Your task to perform on an android device: What's the weather? Image 0: 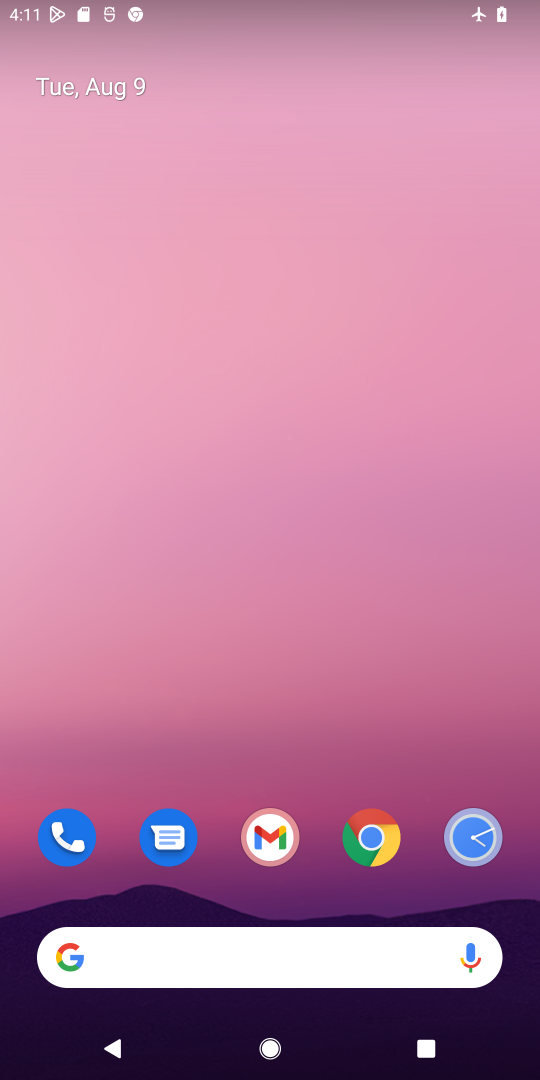
Step 0: drag from (342, 920) to (349, 176)
Your task to perform on an android device: What's the weather? Image 1: 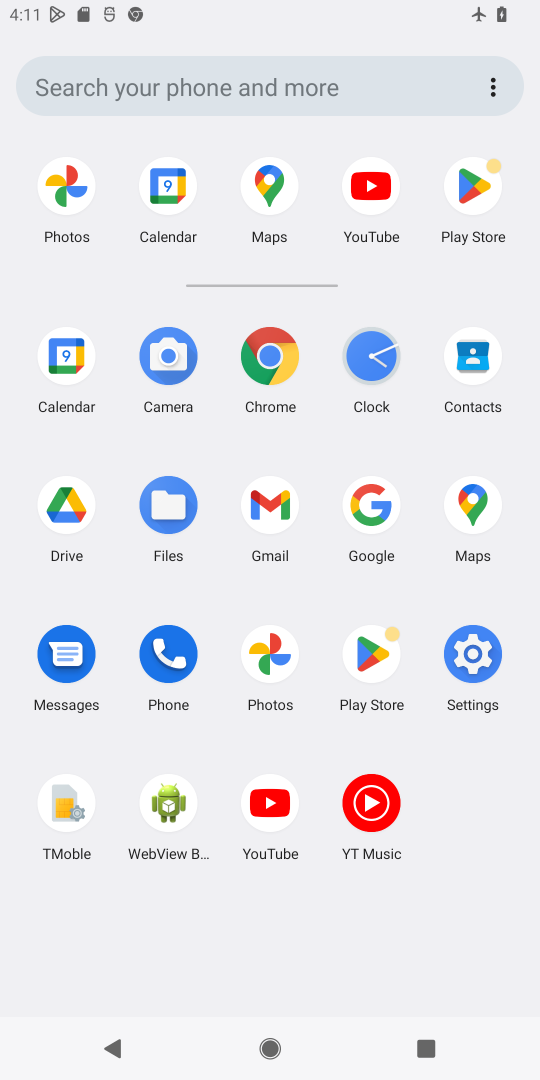
Step 1: click (266, 366)
Your task to perform on an android device: What's the weather? Image 2: 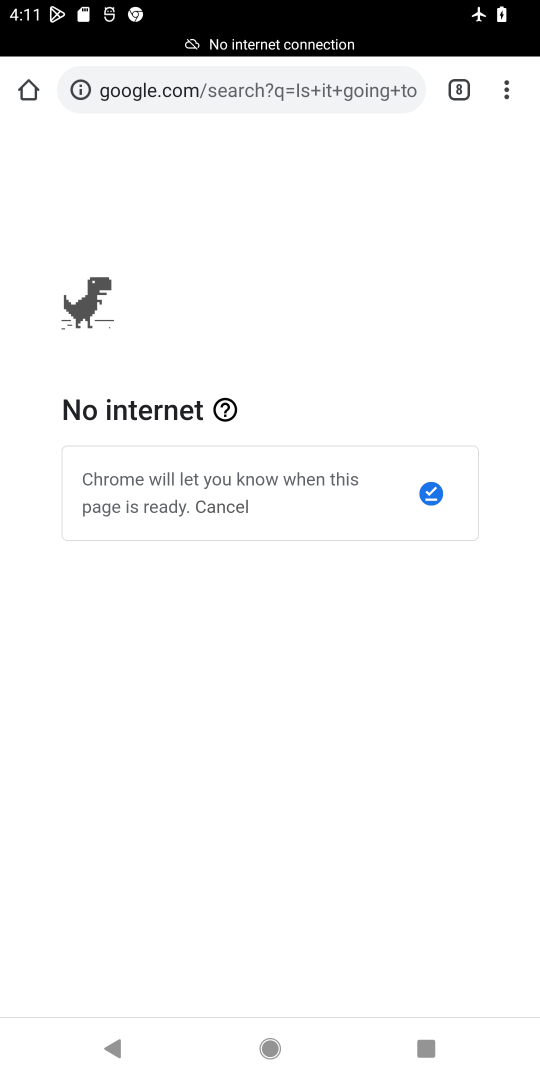
Step 2: click (517, 84)
Your task to perform on an android device: What's the weather? Image 3: 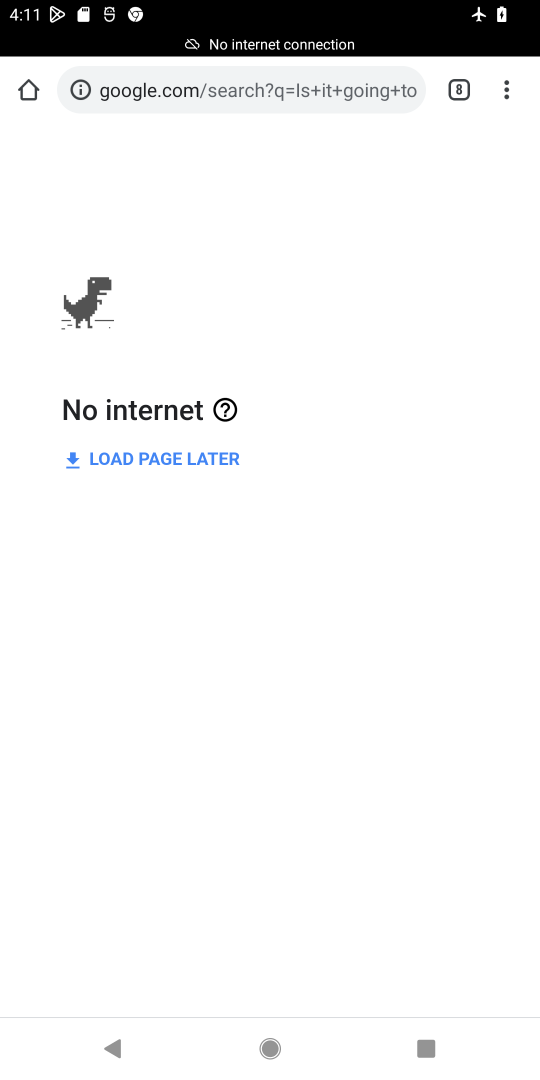
Step 3: click (507, 87)
Your task to perform on an android device: What's the weather? Image 4: 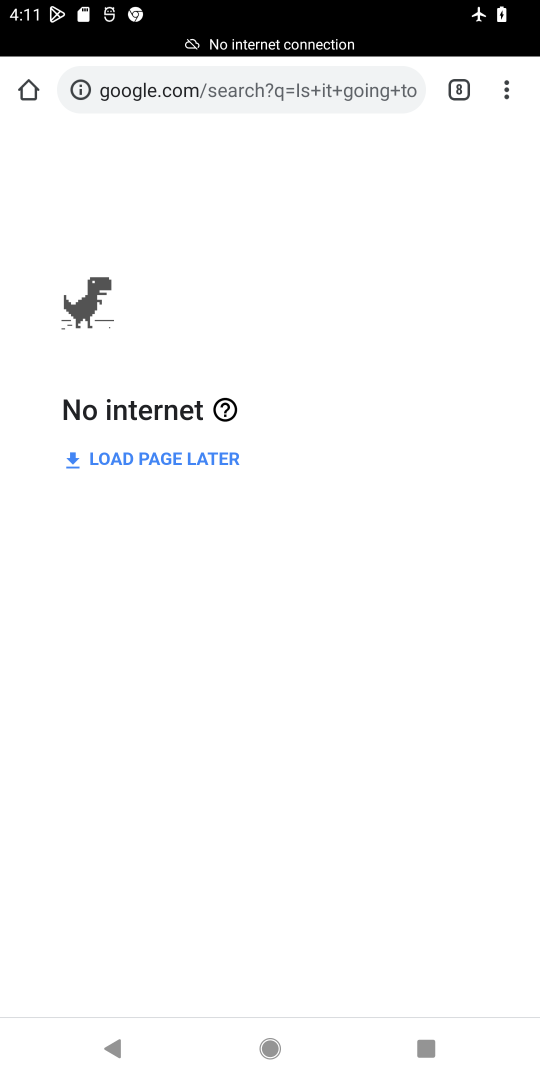
Step 4: click (507, 87)
Your task to perform on an android device: What's the weather? Image 5: 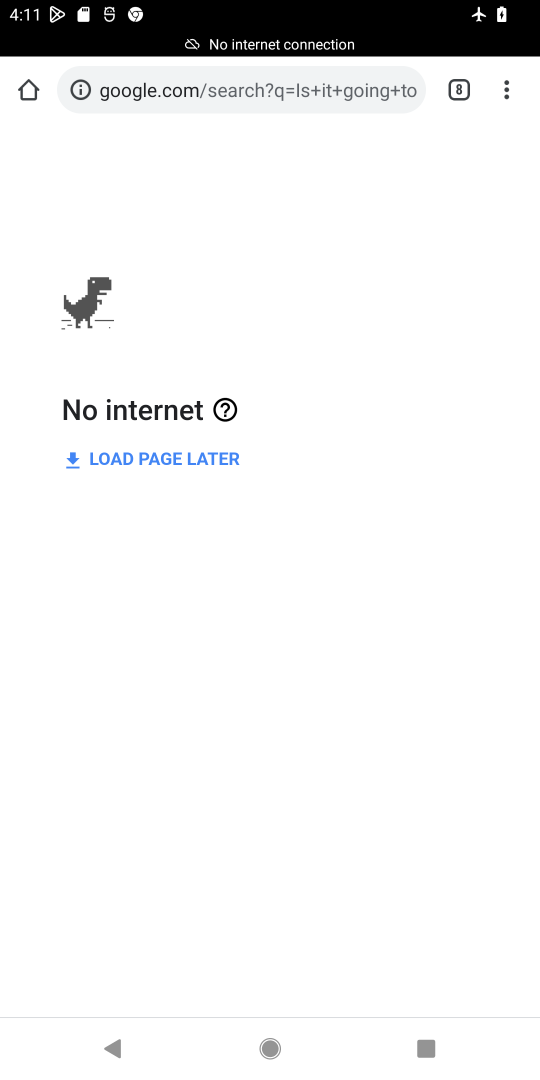
Step 5: click (507, 87)
Your task to perform on an android device: What's the weather? Image 6: 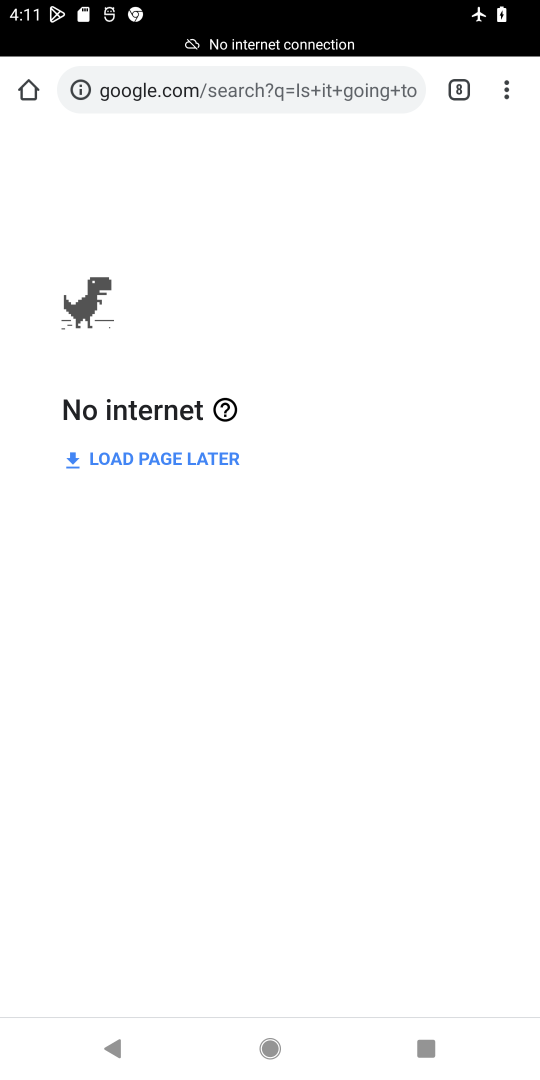
Step 6: click (511, 82)
Your task to perform on an android device: What's the weather? Image 7: 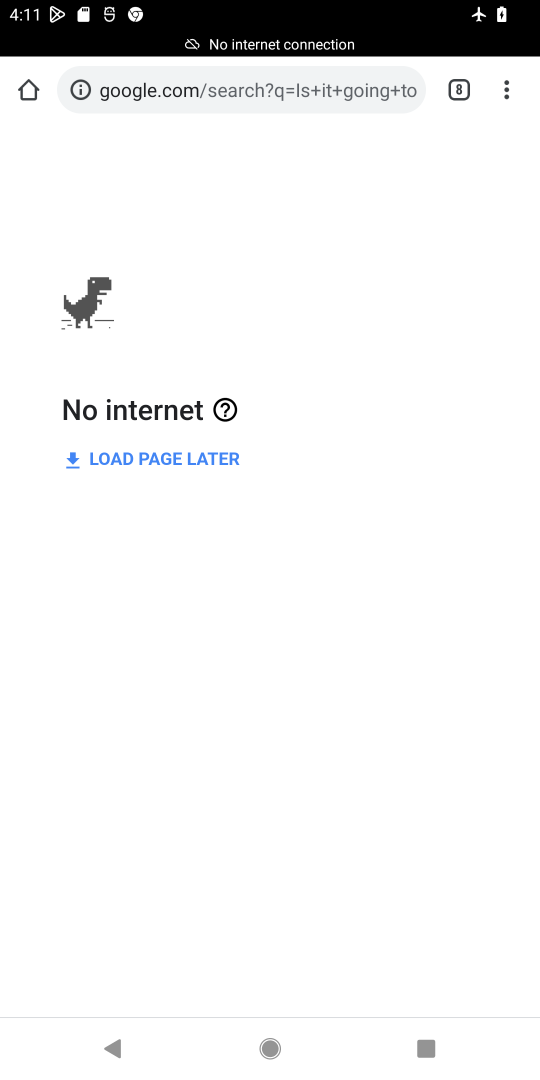
Step 7: click (511, 82)
Your task to perform on an android device: What's the weather? Image 8: 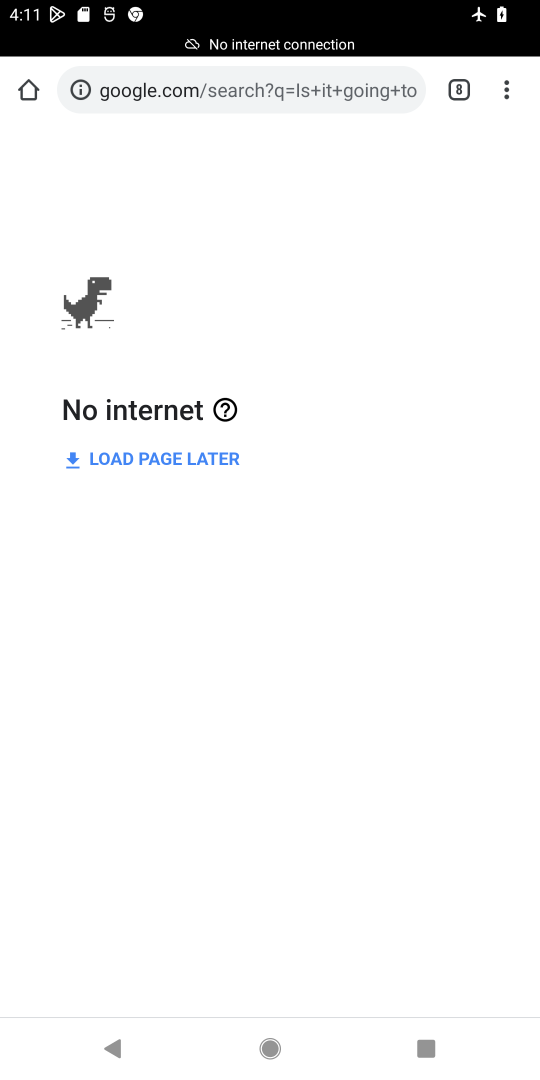
Step 8: click (511, 82)
Your task to perform on an android device: What's the weather? Image 9: 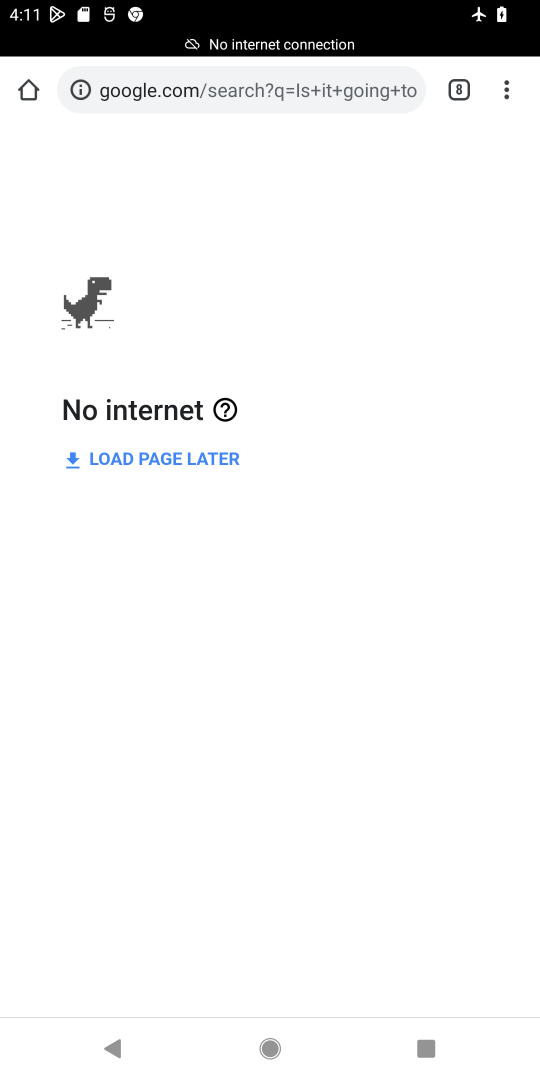
Step 9: click (511, 82)
Your task to perform on an android device: What's the weather? Image 10: 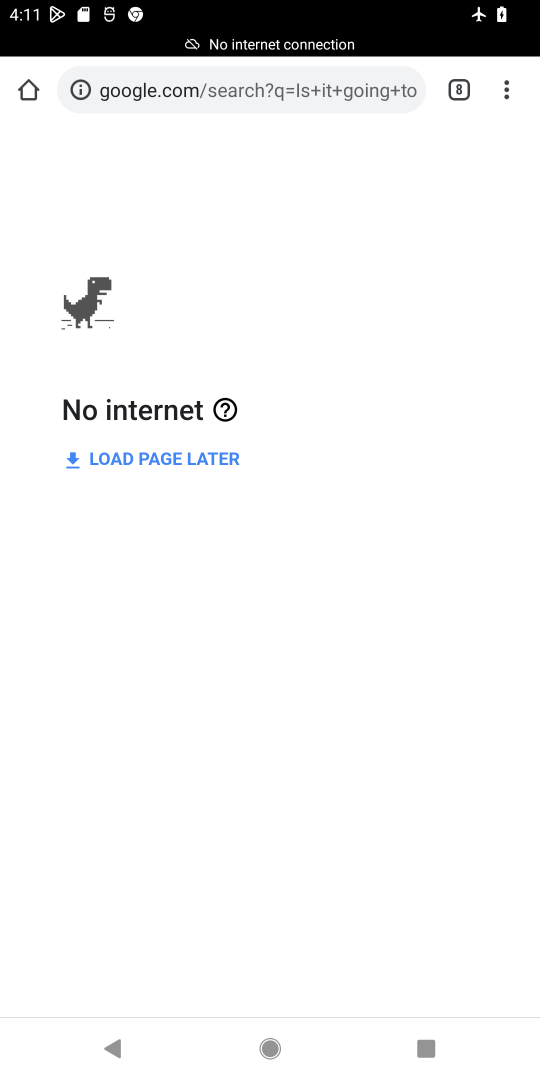
Step 10: click (511, 82)
Your task to perform on an android device: What's the weather? Image 11: 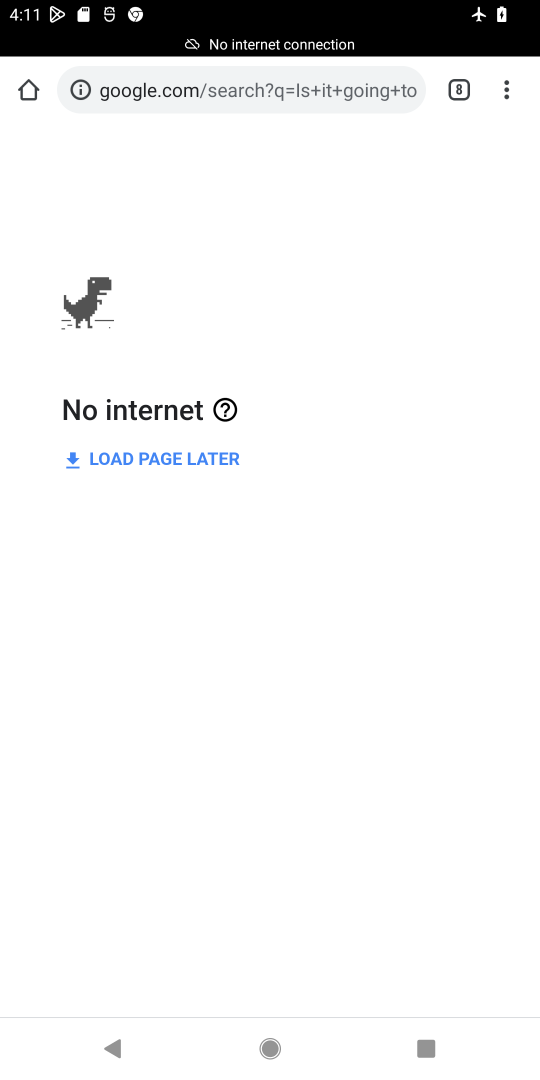
Step 11: click (511, 82)
Your task to perform on an android device: What's the weather? Image 12: 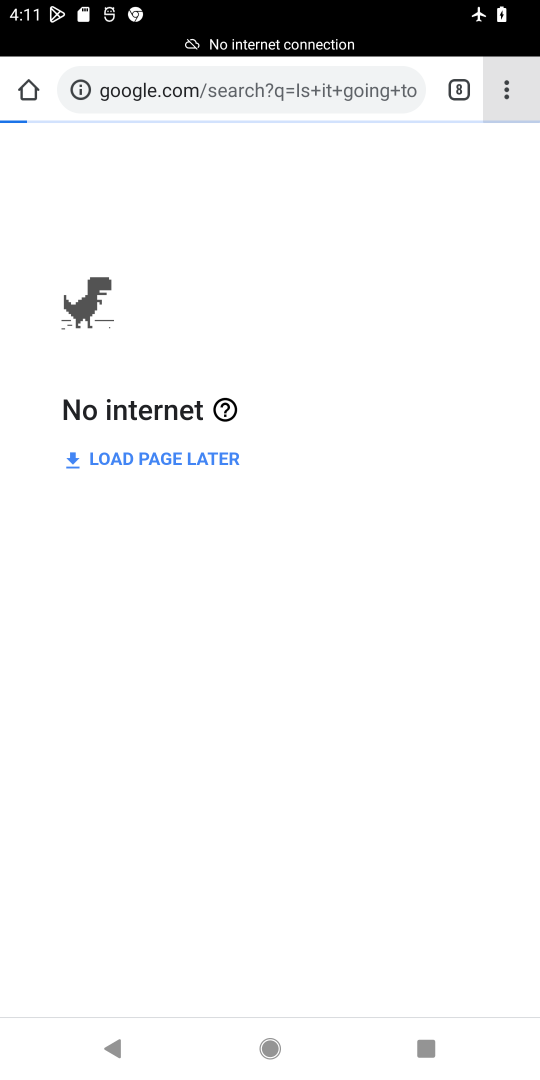
Step 12: click (511, 82)
Your task to perform on an android device: What's the weather? Image 13: 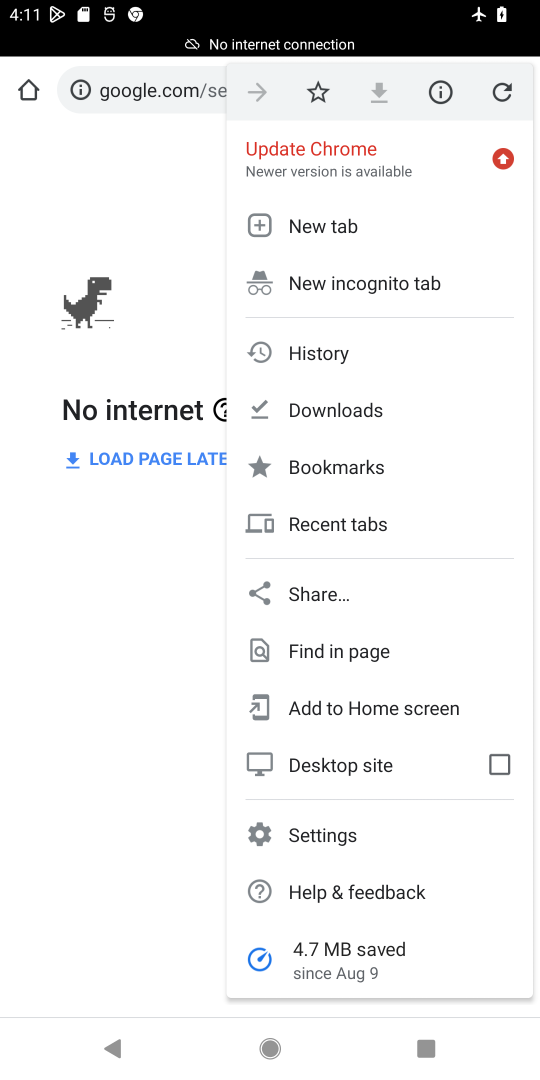
Step 13: click (293, 214)
Your task to perform on an android device: What's the weather? Image 14: 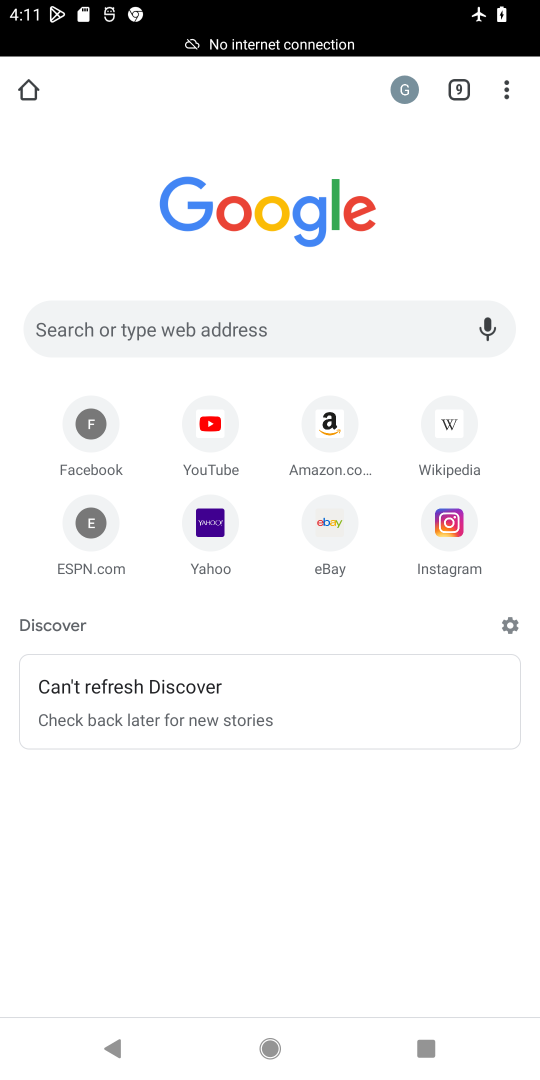
Step 14: click (320, 312)
Your task to perform on an android device: What's the weather? Image 15: 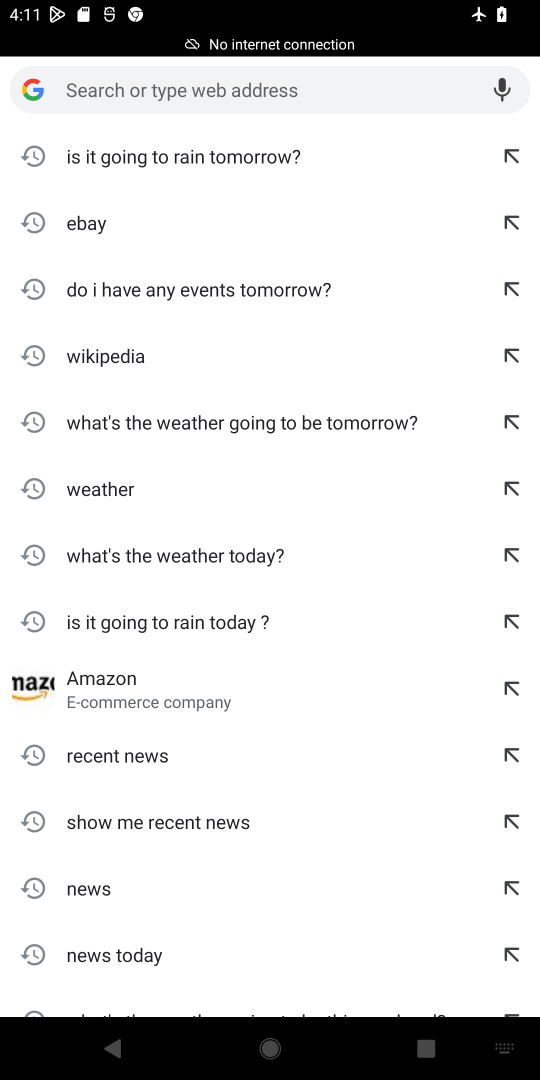
Step 15: type "What's the weather? "
Your task to perform on an android device: What's the weather? Image 16: 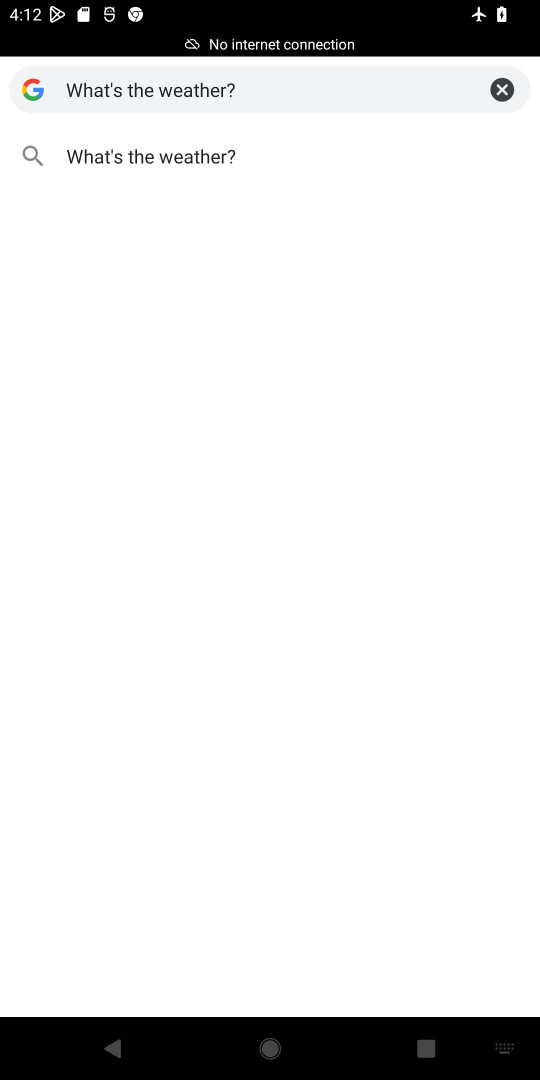
Step 16: click (198, 153)
Your task to perform on an android device: What's the weather? Image 17: 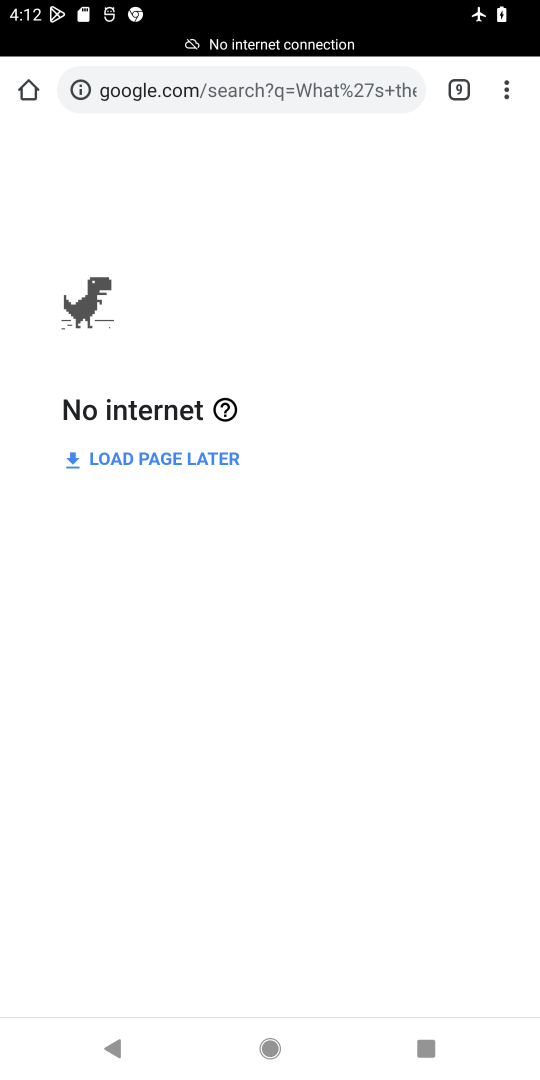
Step 17: task complete